Your task to perform on an android device: Open sound settings Image 0: 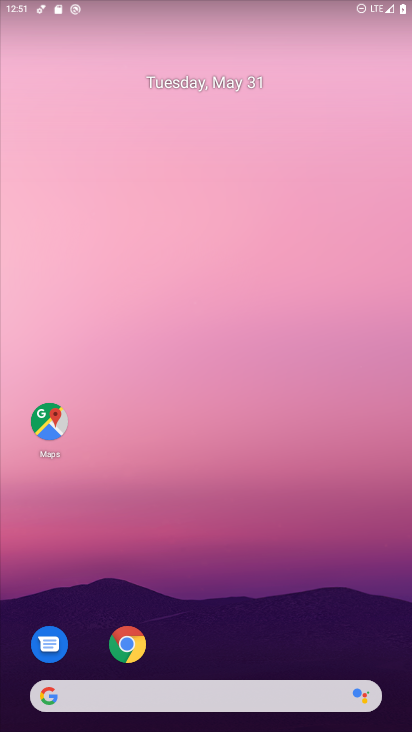
Step 0: click (308, 160)
Your task to perform on an android device: Open sound settings Image 1: 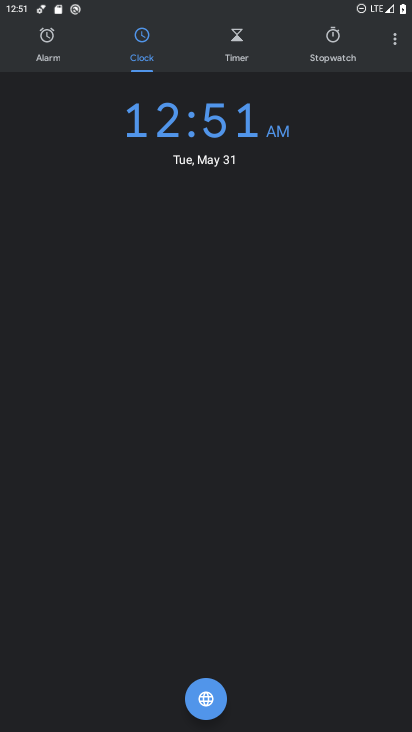
Step 1: click (395, 51)
Your task to perform on an android device: Open sound settings Image 2: 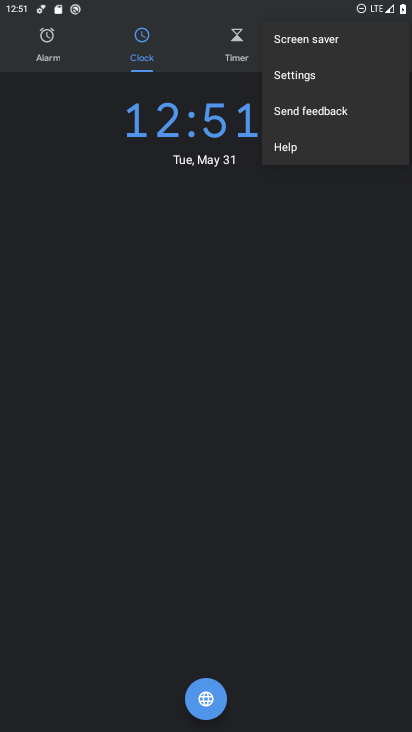
Step 2: press home button
Your task to perform on an android device: Open sound settings Image 3: 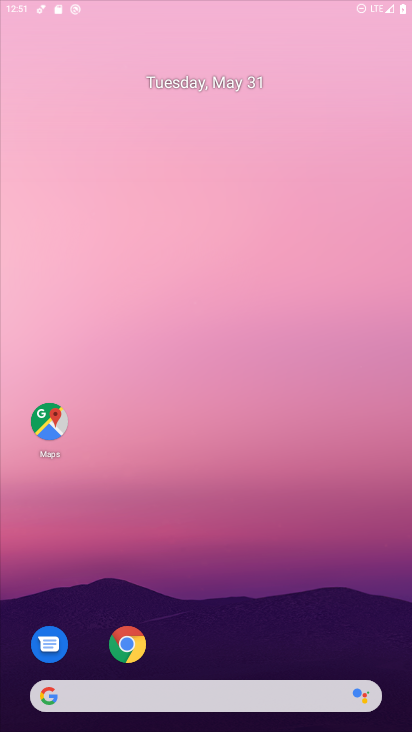
Step 3: drag from (252, 496) to (303, 1)
Your task to perform on an android device: Open sound settings Image 4: 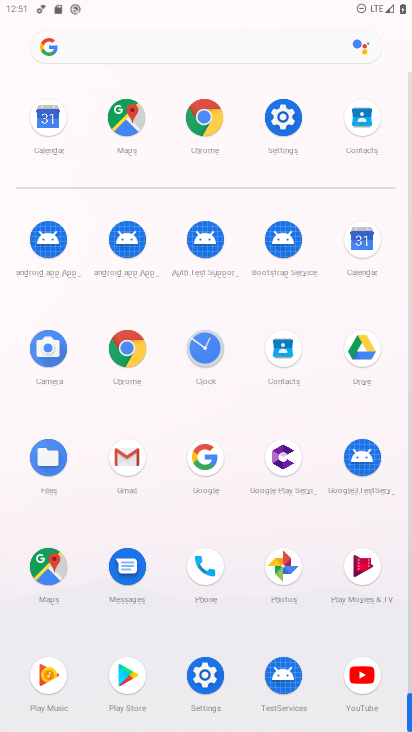
Step 4: click (275, 113)
Your task to perform on an android device: Open sound settings Image 5: 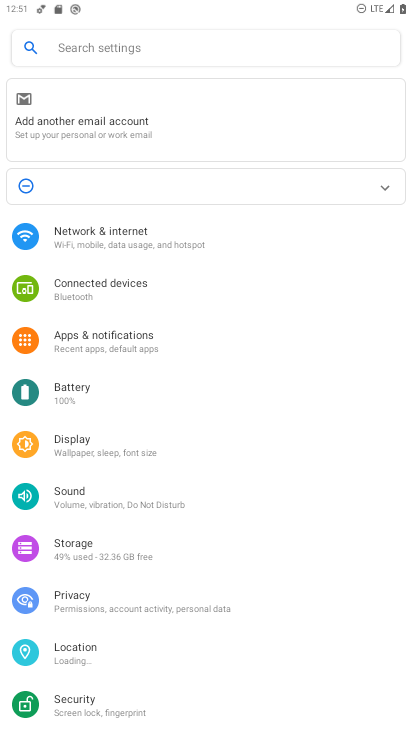
Step 5: click (95, 496)
Your task to perform on an android device: Open sound settings Image 6: 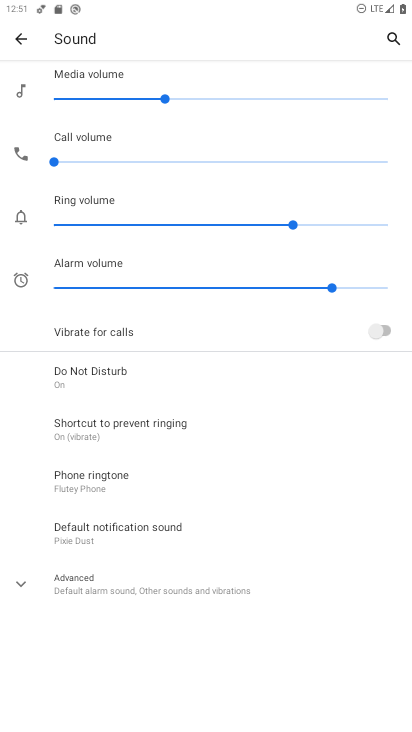
Step 6: task complete